Your task to perform on an android device: open device folders in google photos Image 0: 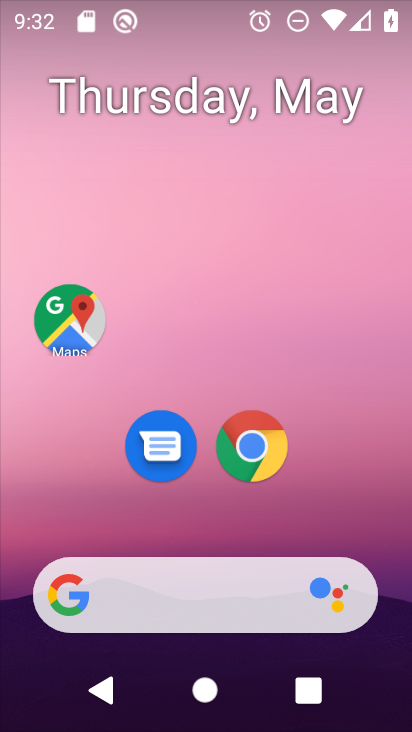
Step 0: drag from (346, 486) to (351, 128)
Your task to perform on an android device: open device folders in google photos Image 1: 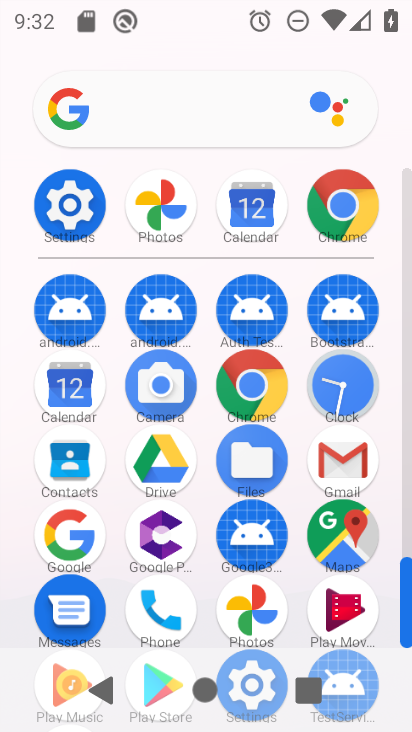
Step 1: drag from (292, 579) to (300, 272)
Your task to perform on an android device: open device folders in google photos Image 2: 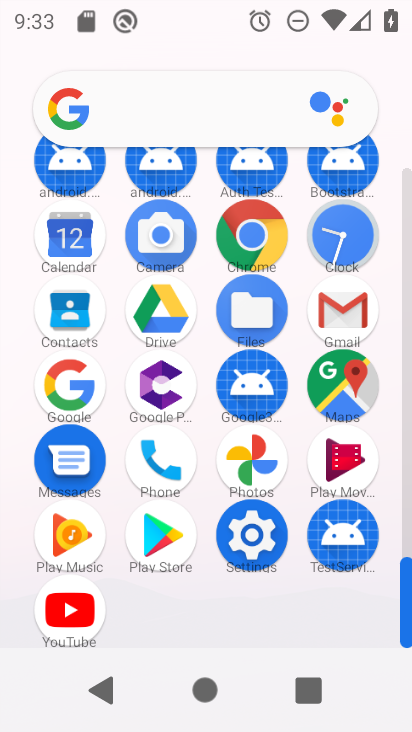
Step 2: click (234, 468)
Your task to perform on an android device: open device folders in google photos Image 3: 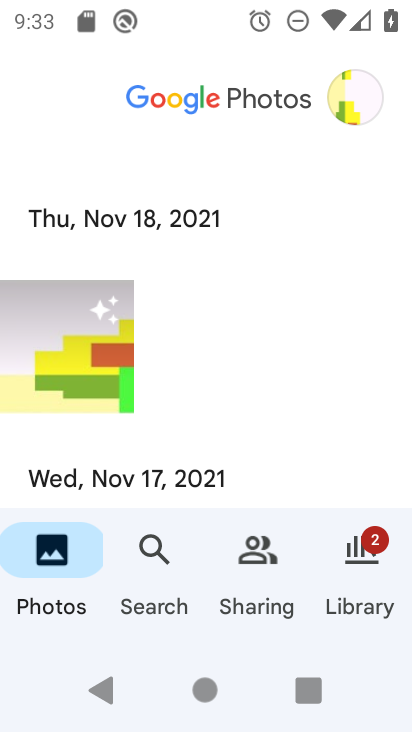
Step 3: task complete